Your task to perform on an android device: What's the news in India? Image 0: 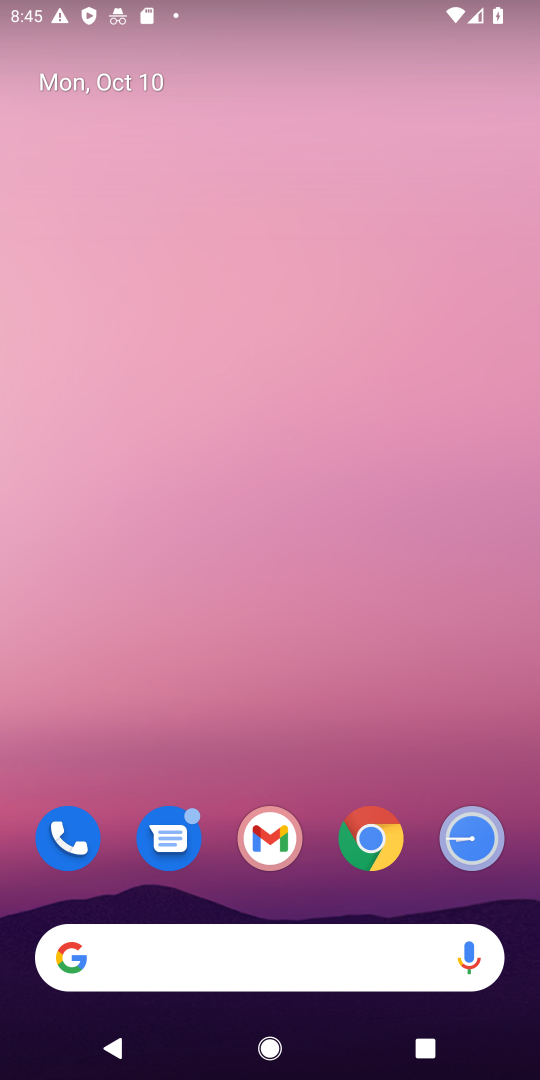
Step 0: drag from (197, 837) to (176, 170)
Your task to perform on an android device: What's the news in India? Image 1: 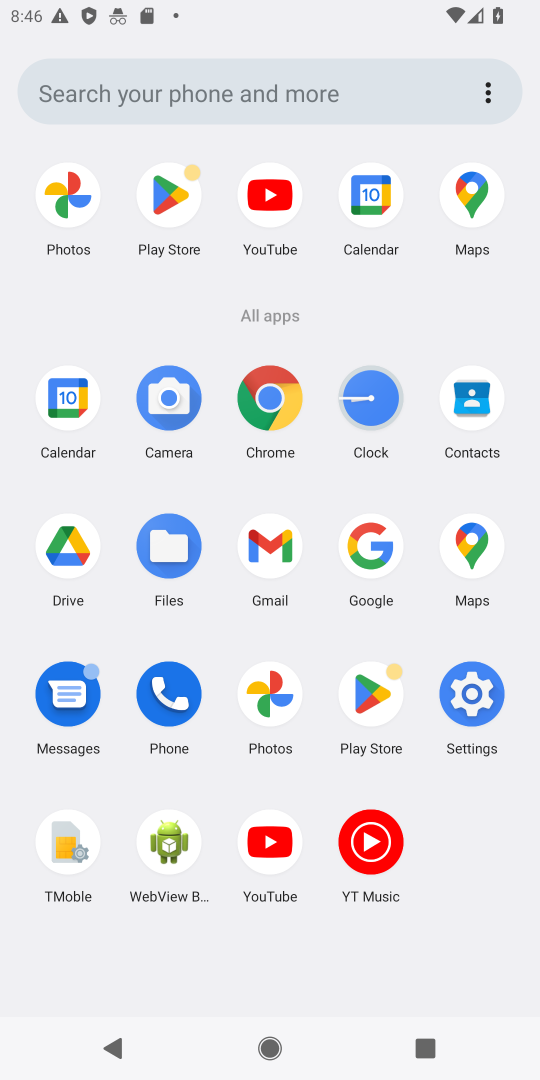
Step 1: click (359, 544)
Your task to perform on an android device: What's the news in India? Image 2: 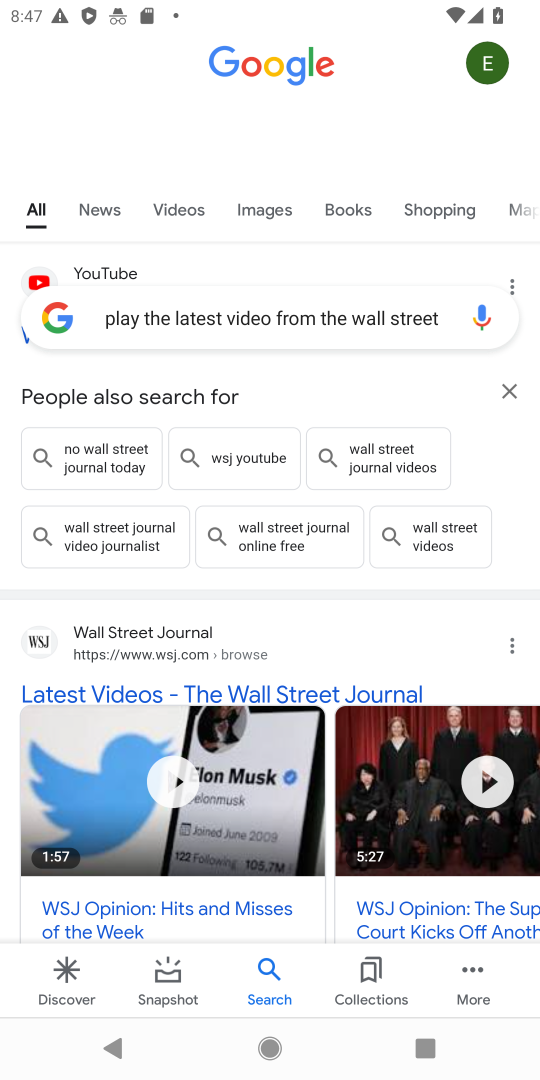
Step 2: click (98, 206)
Your task to perform on an android device: What's the news in India? Image 3: 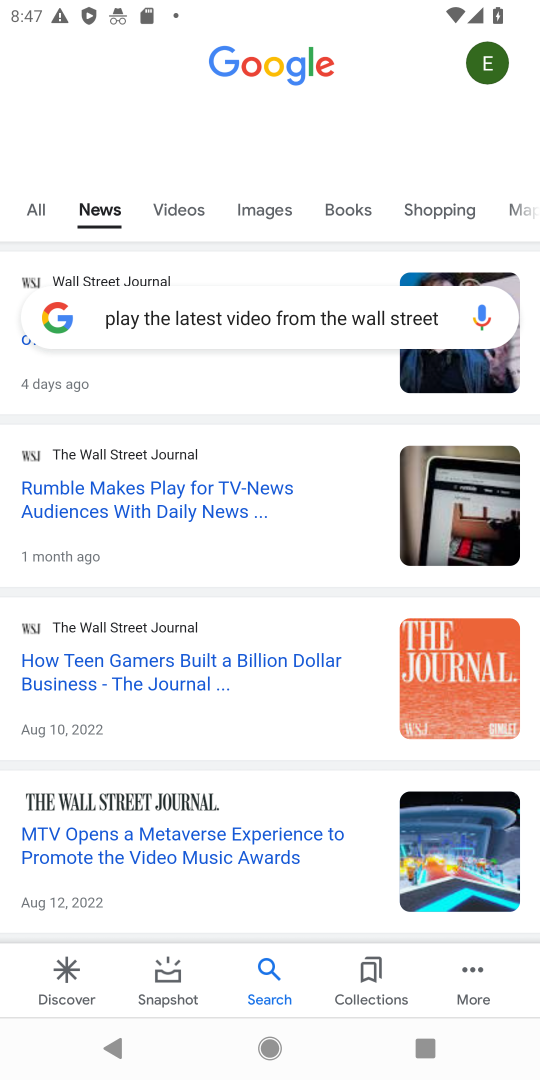
Step 3: click (405, 318)
Your task to perform on an android device: What's the news in India? Image 4: 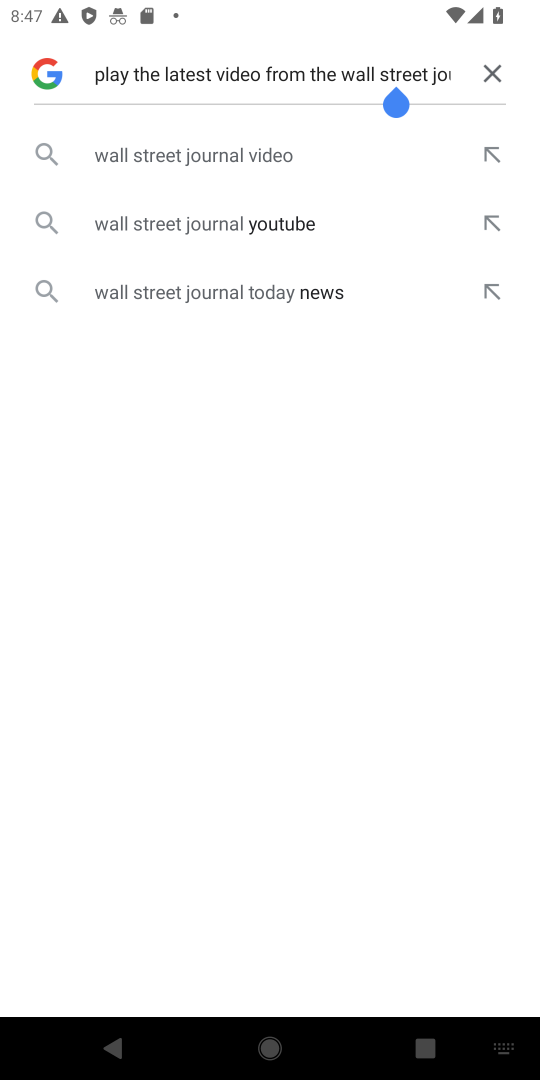
Step 4: click (489, 67)
Your task to perform on an android device: What's the news in India? Image 5: 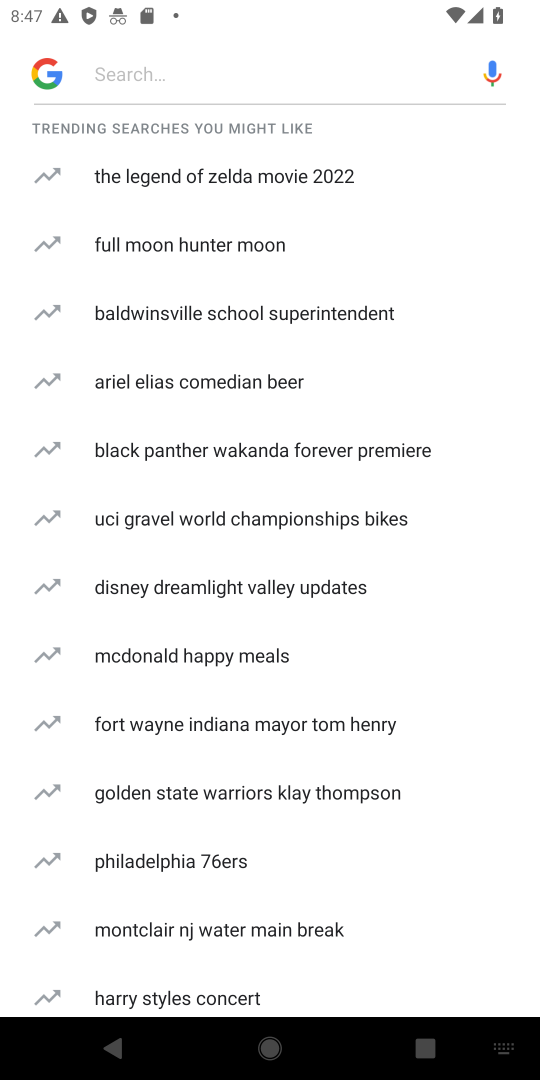
Step 5: type "What's the news in India?"
Your task to perform on an android device: What's the news in India? Image 6: 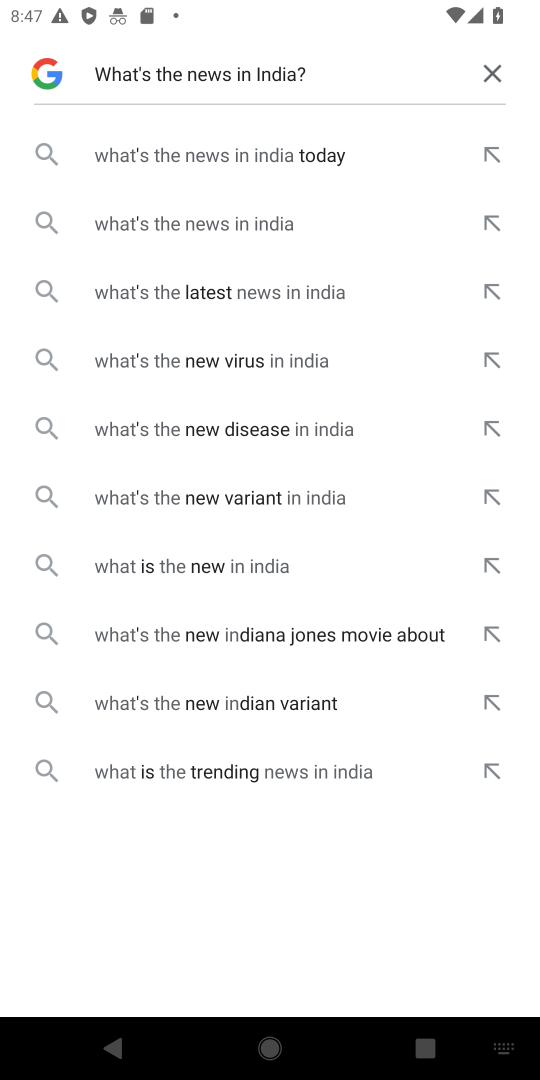
Step 6: click (230, 218)
Your task to perform on an android device: What's the news in India? Image 7: 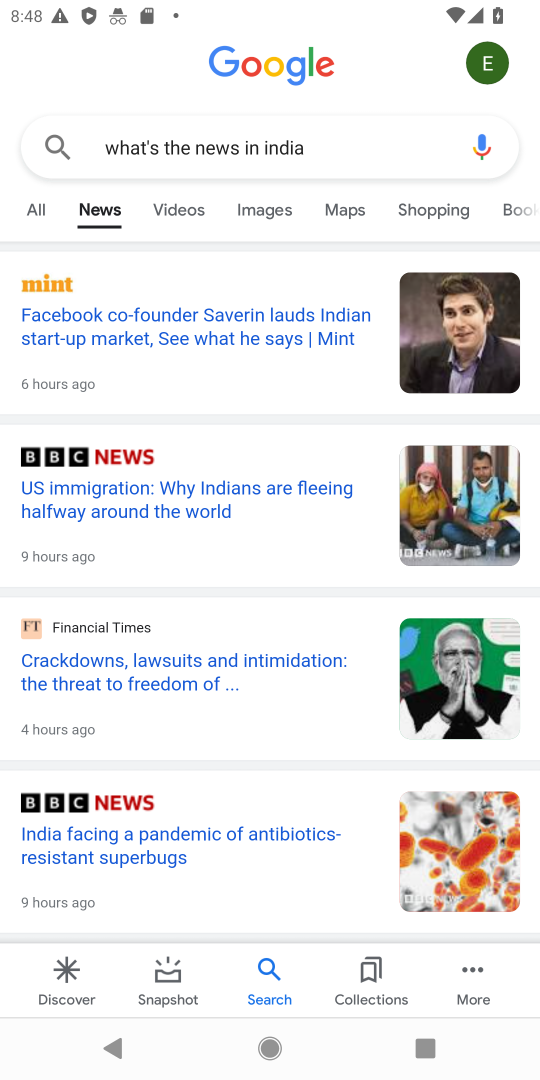
Step 7: task complete